Your task to perform on an android device: turn on wifi Image 0: 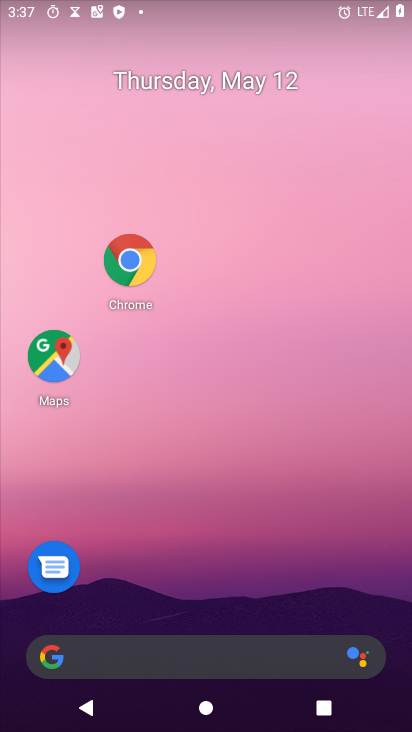
Step 0: drag from (206, 638) to (279, 276)
Your task to perform on an android device: turn on wifi Image 1: 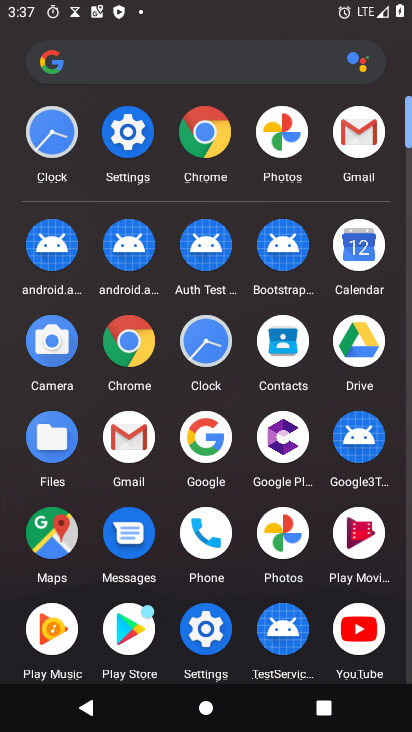
Step 1: click (122, 137)
Your task to perform on an android device: turn on wifi Image 2: 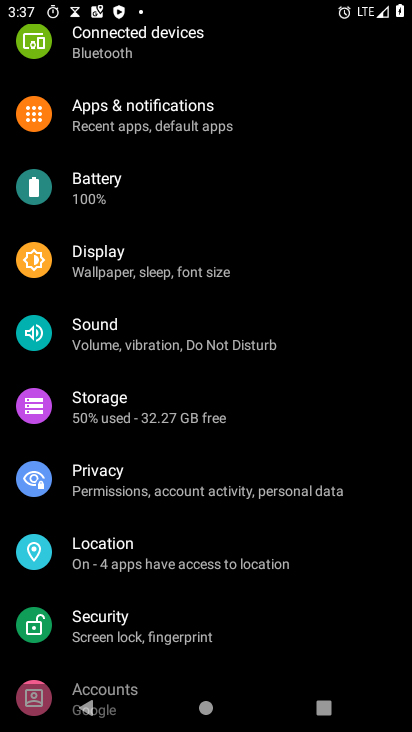
Step 2: drag from (155, 60) to (170, 472)
Your task to perform on an android device: turn on wifi Image 3: 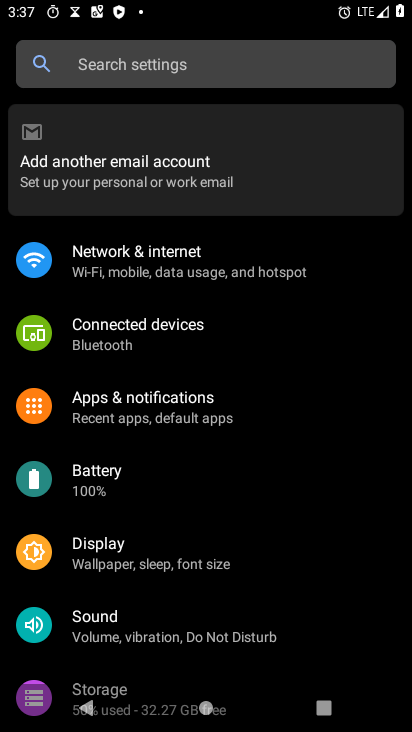
Step 3: click (158, 264)
Your task to perform on an android device: turn on wifi Image 4: 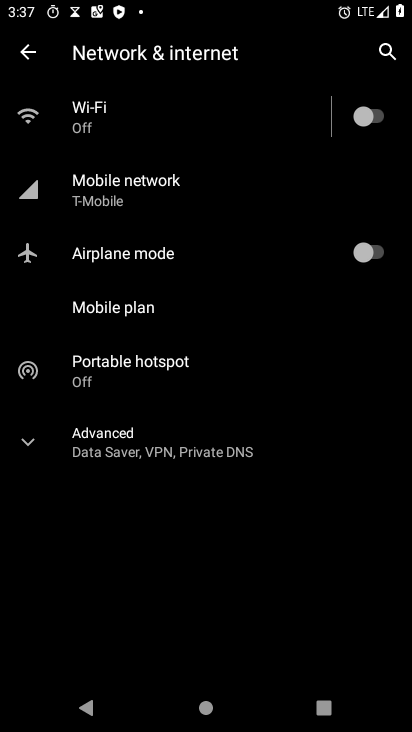
Step 4: click (379, 128)
Your task to perform on an android device: turn on wifi Image 5: 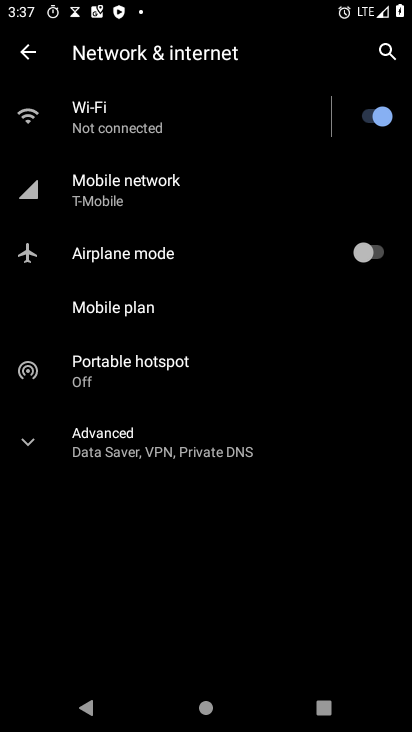
Step 5: task complete